Your task to perform on an android device: add a label to a message in the gmail app Image 0: 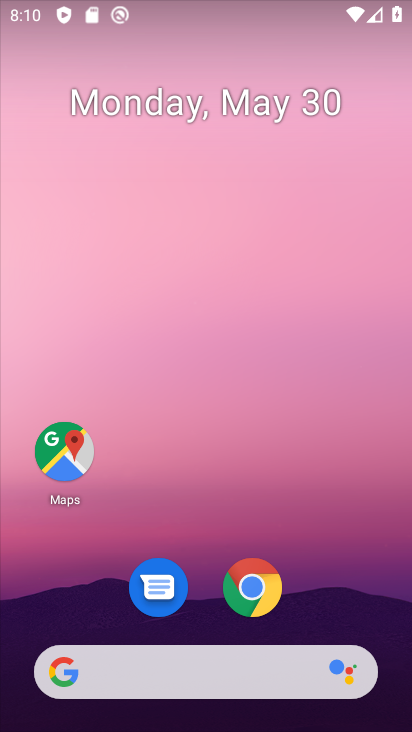
Step 0: drag from (204, 568) to (234, 24)
Your task to perform on an android device: add a label to a message in the gmail app Image 1: 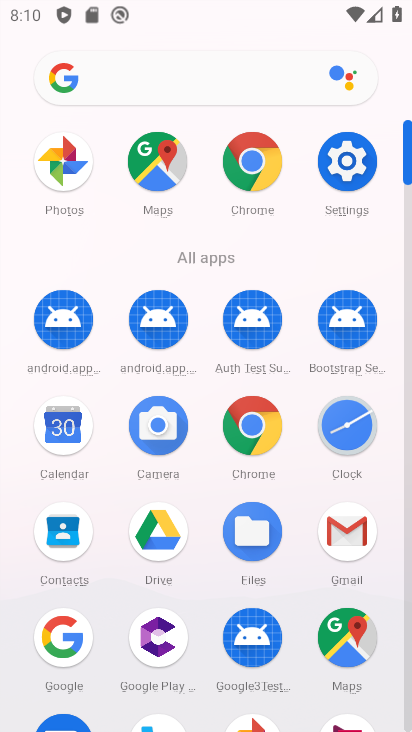
Step 1: click (344, 536)
Your task to perform on an android device: add a label to a message in the gmail app Image 2: 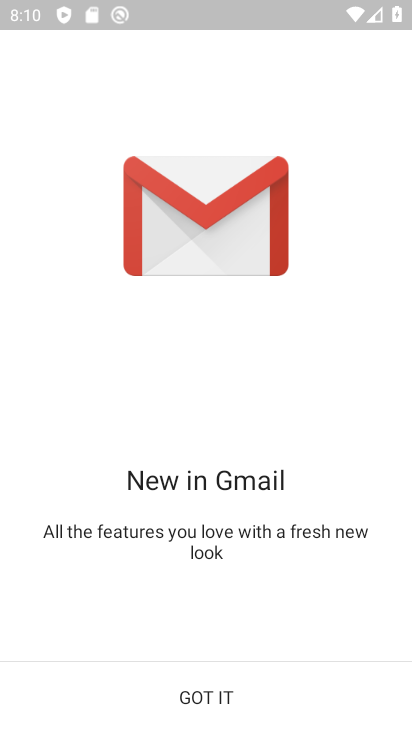
Step 2: click (190, 681)
Your task to perform on an android device: add a label to a message in the gmail app Image 3: 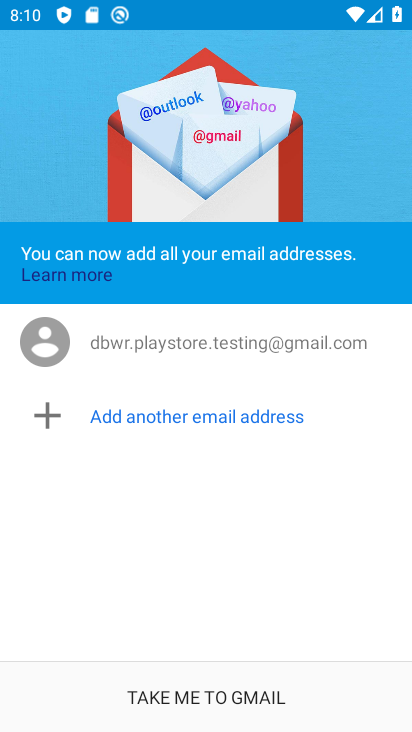
Step 3: click (190, 681)
Your task to perform on an android device: add a label to a message in the gmail app Image 4: 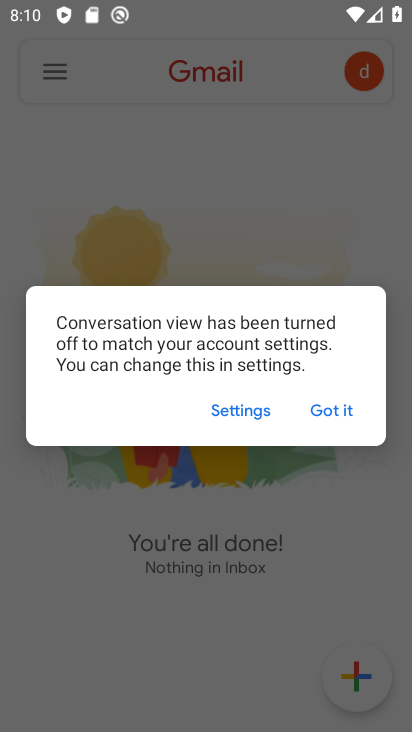
Step 4: click (334, 409)
Your task to perform on an android device: add a label to a message in the gmail app Image 5: 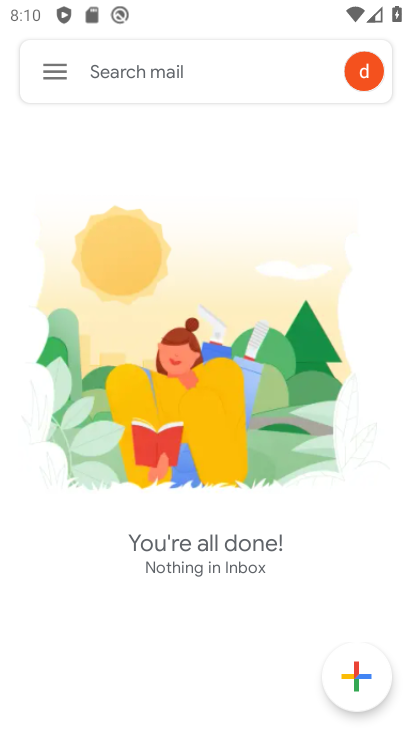
Step 5: click (47, 71)
Your task to perform on an android device: add a label to a message in the gmail app Image 6: 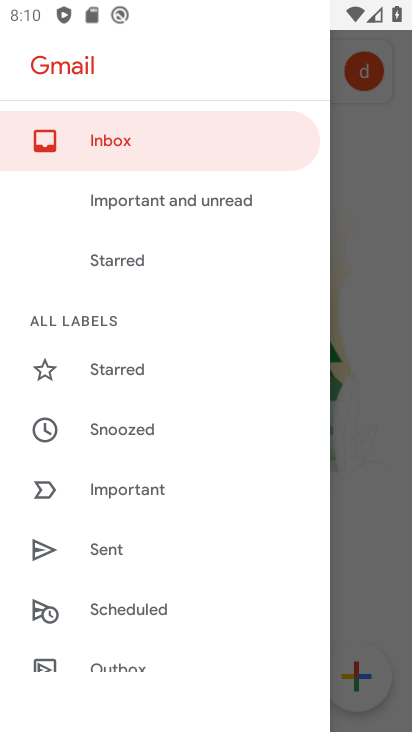
Step 6: click (380, 318)
Your task to perform on an android device: add a label to a message in the gmail app Image 7: 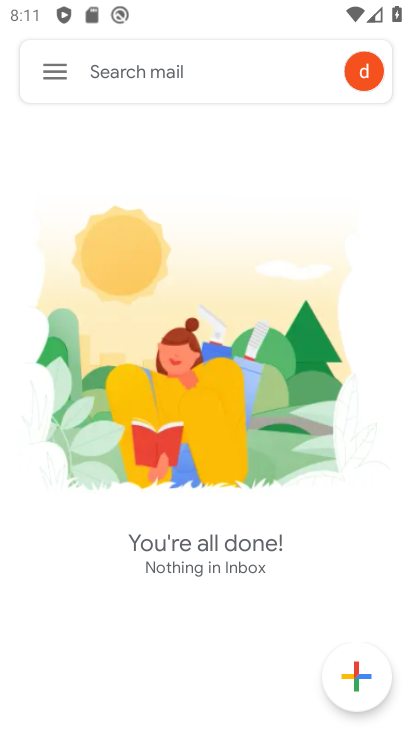
Step 7: task complete